Your task to perform on an android device: turn pop-ups off in chrome Image 0: 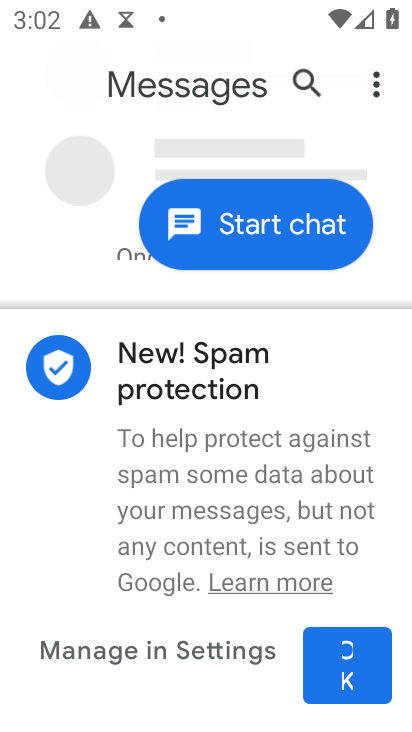
Step 0: press home button
Your task to perform on an android device: turn pop-ups off in chrome Image 1: 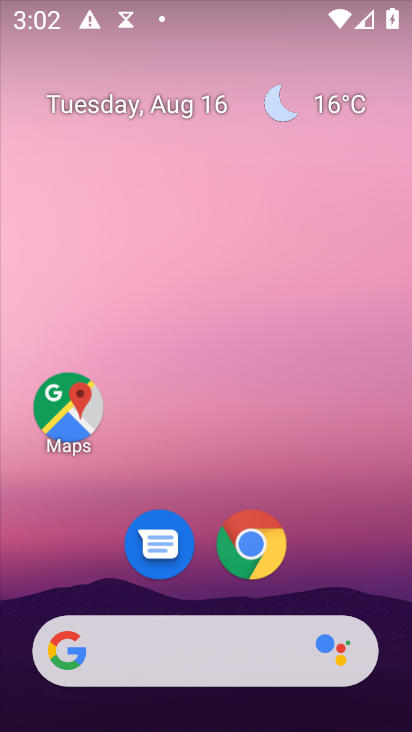
Step 1: click (251, 548)
Your task to perform on an android device: turn pop-ups off in chrome Image 2: 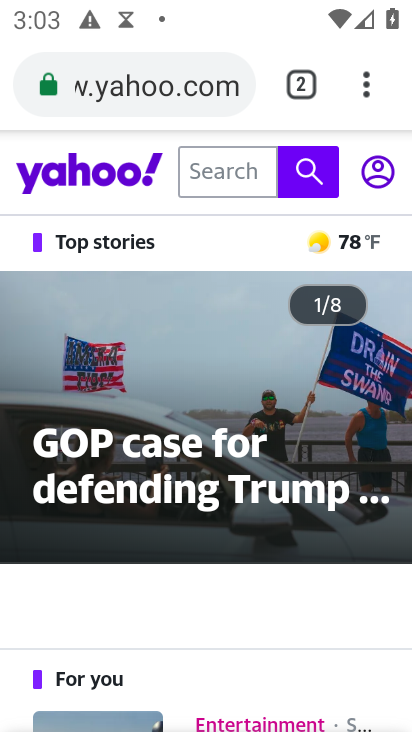
Step 2: click (376, 83)
Your task to perform on an android device: turn pop-ups off in chrome Image 3: 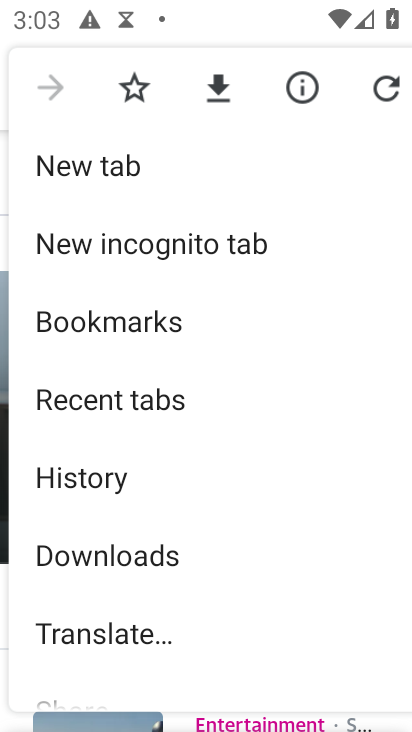
Step 3: drag from (122, 591) to (174, 499)
Your task to perform on an android device: turn pop-ups off in chrome Image 4: 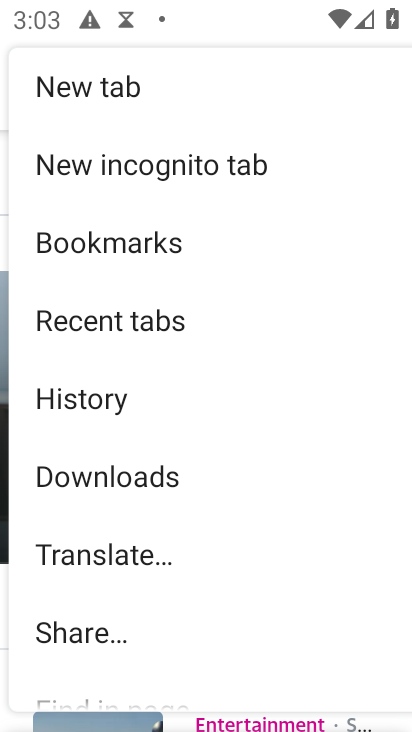
Step 4: drag from (112, 590) to (166, 507)
Your task to perform on an android device: turn pop-ups off in chrome Image 5: 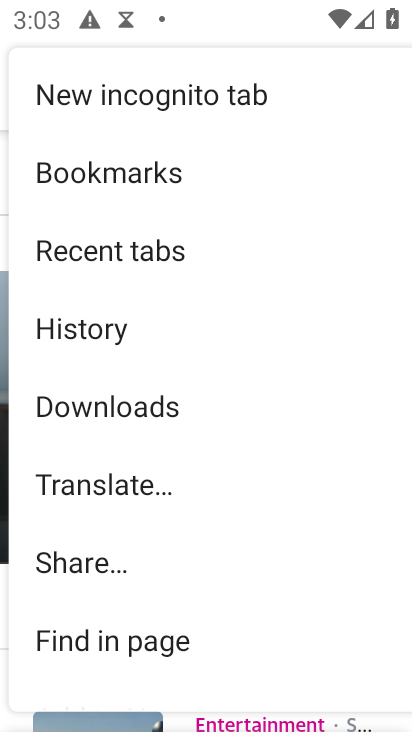
Step 5: drag from (104, 598) to (163, 520)
Your task to perform on an android device: turn pop-ups off in chrome Image 6: 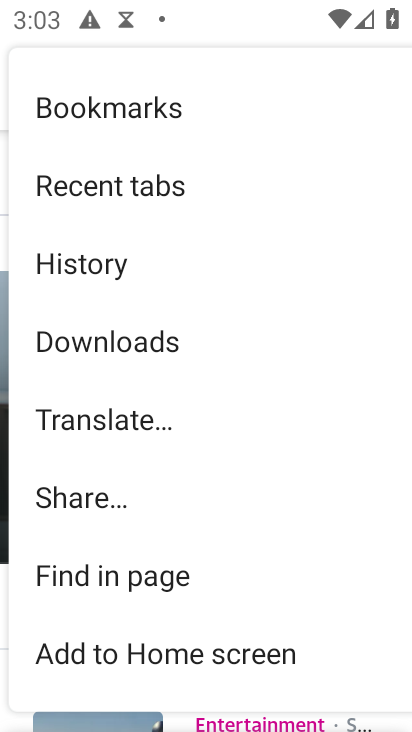
Step 6: drag from (104, 612) to (169, 499)
Your task to perform on an android device: turn pop-ups off in chrome Image 7: 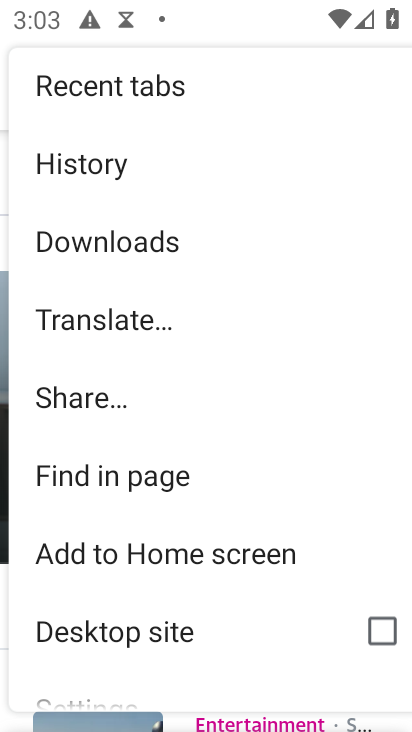
Step 7: drag from (77, 666) to (196, 466)
Your task to perform on an android device: turn pop-ups off in chrome Image 8: 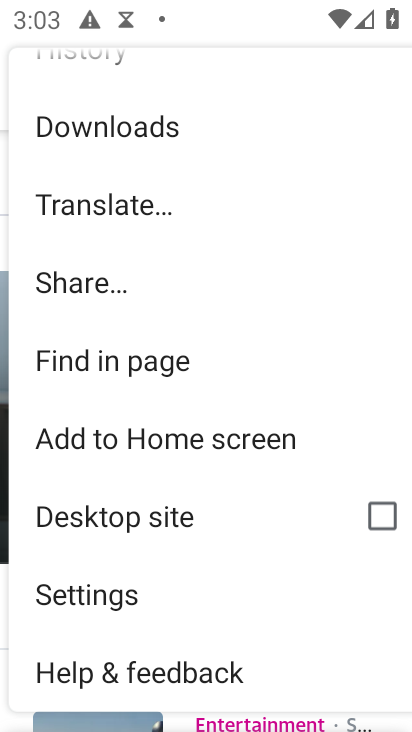
Step 8: click (103, 596)
Your task to perform on an android device: turn pop-ups off in chrome Image 9: 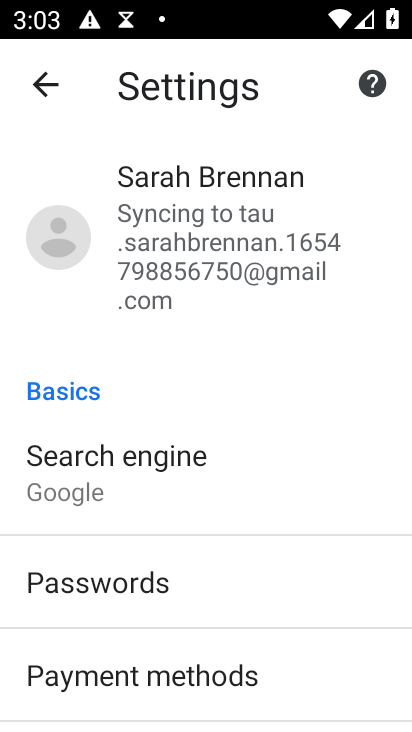
Step 9: drag from (122, 549) to (204, 443)
Your task to perform on an android device: turn pop-ups off in chrome Image 10: 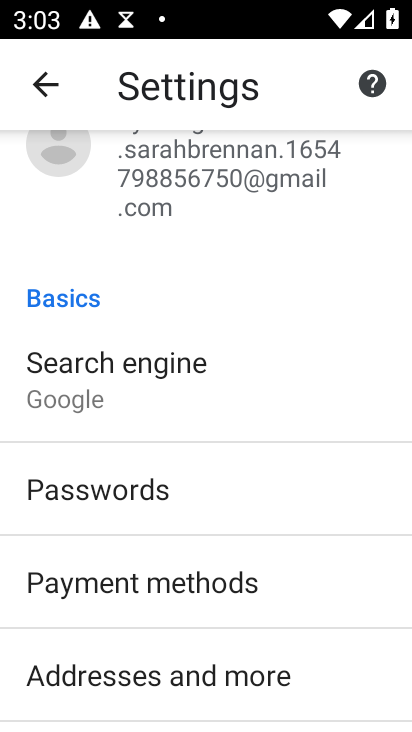
Step 10: drag from (135, 596) to (216, 483)
Your task to perform on an android device: turn pop-ups off in chrome Image 11: 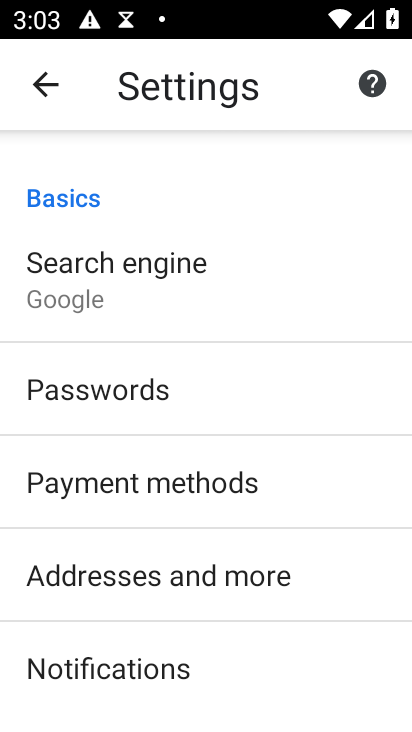
Step 11: drag from (119, 625) to (214, 495)
Your task to perform on an android device: turn pop-ups off in chrome Image 12: 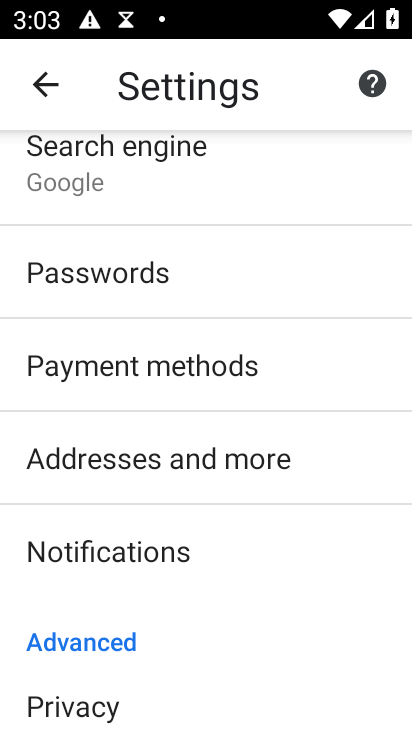
Step 12: drag from (112, 655) to (197, 531)
Your task to perform on an android device: turn pop-ups off in chrome Image 13: 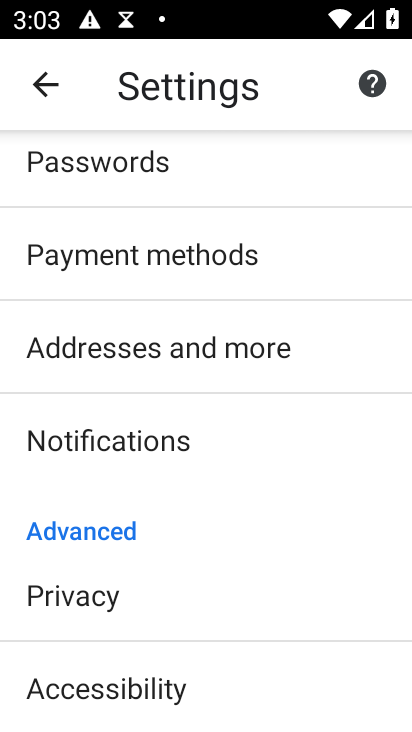
Step 13: drag from (126, 683) to (231, 559)
Your task to perform on an android device: turn pop-ups off in chrome Image 14: 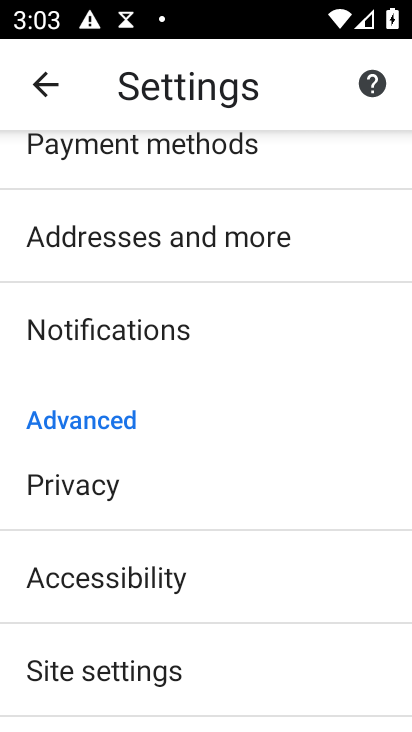
Step 14: drag from (154, 644) to (225, 523)
Your task to perform on an android device: turn pop-ups off in chrome Image 15: 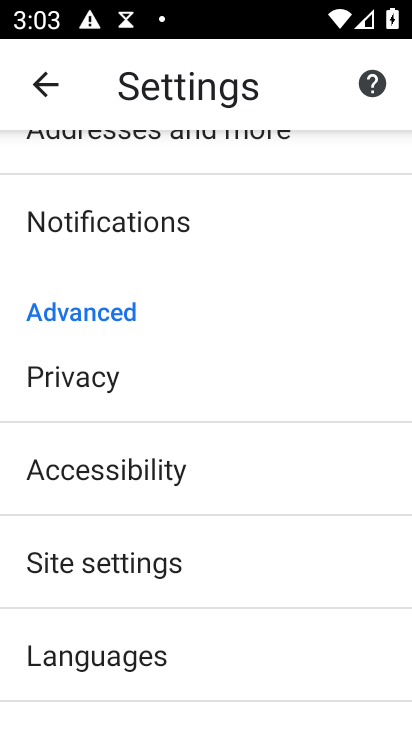
Step 15: click (160, 558)
Your task to perform on an android device: turn pop-ups off in chrome Image 16: 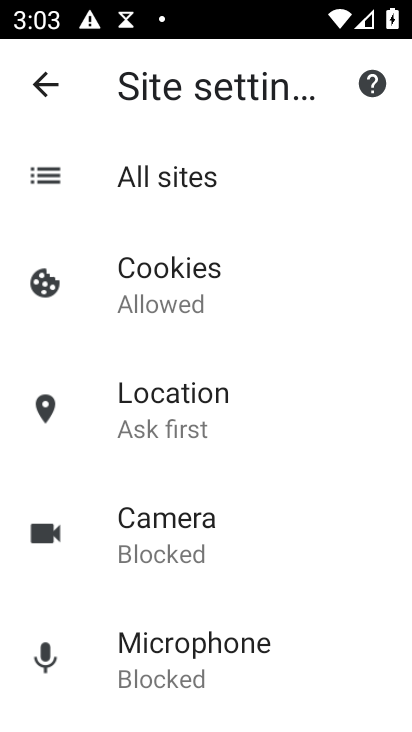
Step 16: drag from (187, 589) to (257, 449)
Your task to perform on an android device: turn pop-ups off in chrome Image 17: 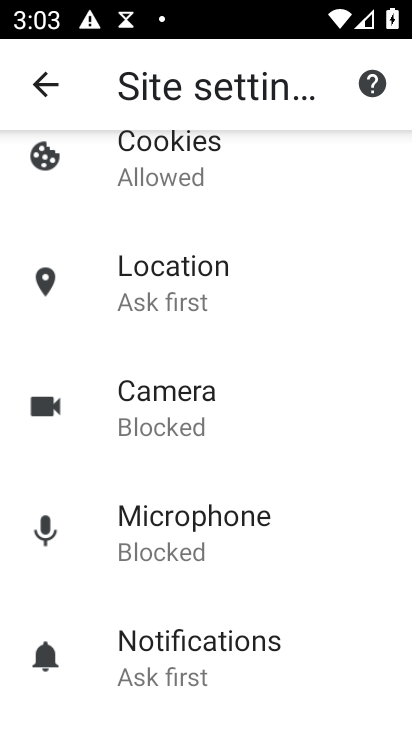
Step 17: drag from (183, 608) to (238, 469)
Your task to perform on an android device: turn pop-ups off in chrome Image 18: 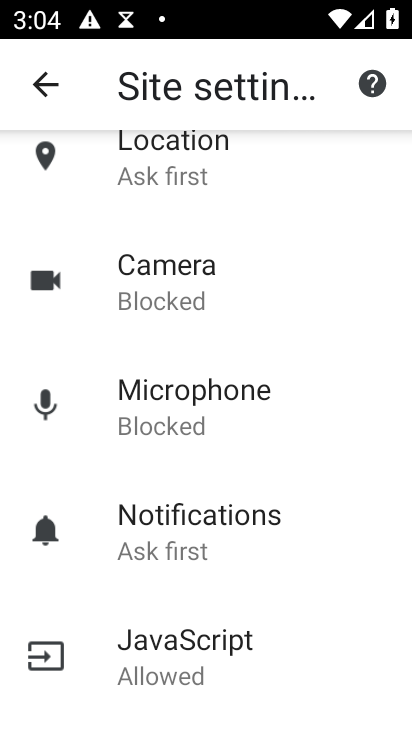
Step 18: drag from (184, 578) to (238, 461)
Your task to perform on an android device: turn pop-ups off in chrome Image 19: 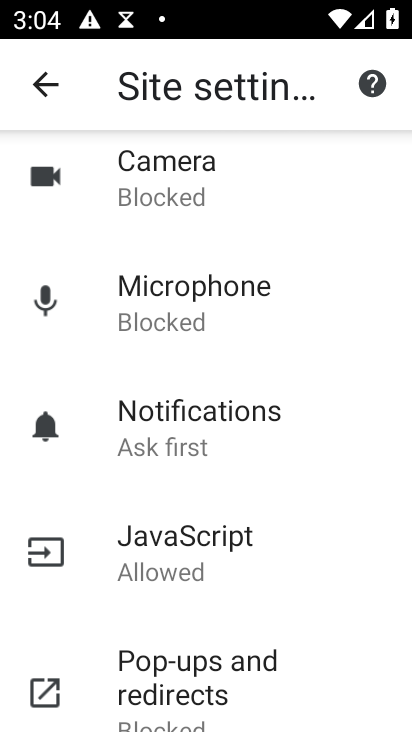
Step 19: drag from (138, 606) to (217, 471)
Your task to perform on an android device: turn pop-ups off in chrome Image 20: 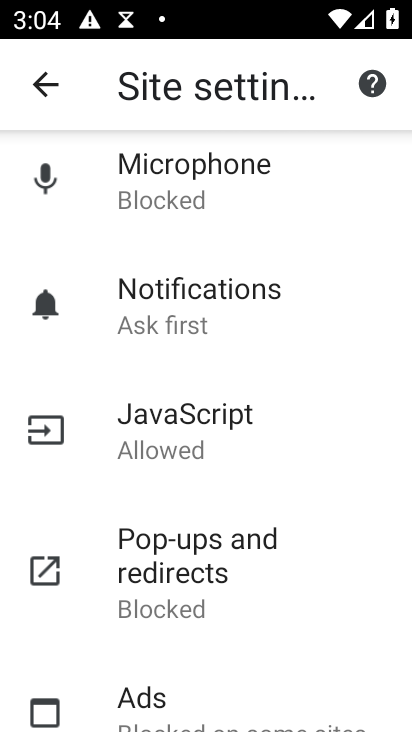
Step 20: click (173, 558)
Your task to perform on an android device: turn pop-ups off in chrome Image 21: 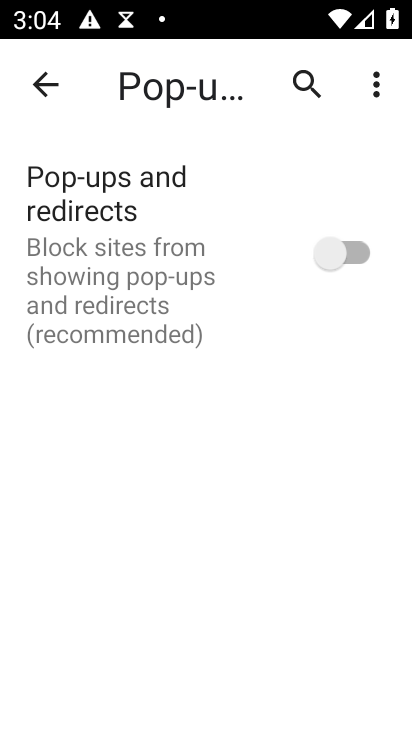
Step 21: task complete